Your task to perform on an android device: Show me popular games on the Play Store Image 0: 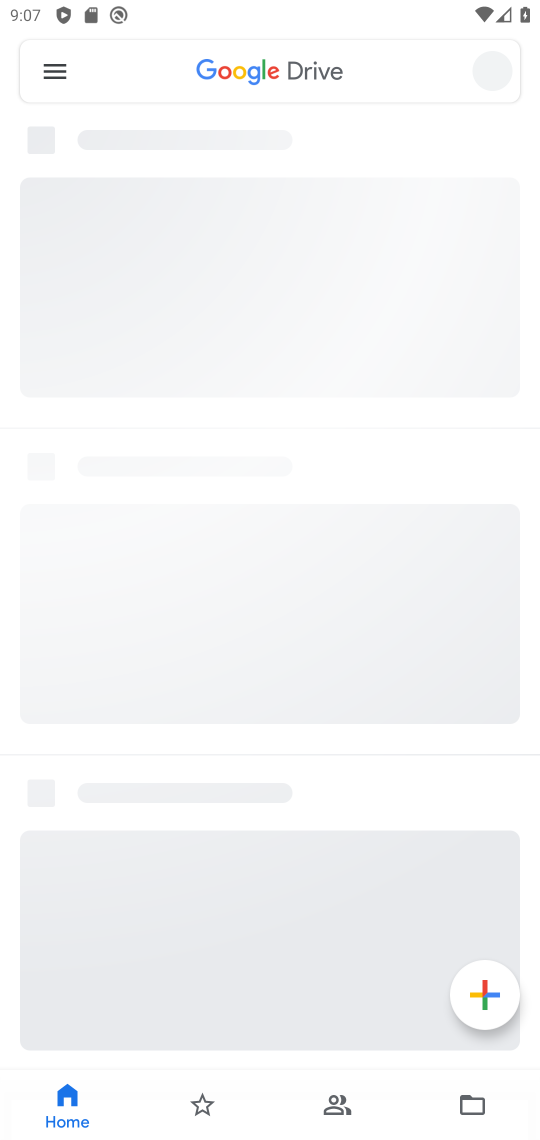
Step 0: press home button
Your task to perform on an android device: Show me popular games on the Play Store Image 1: 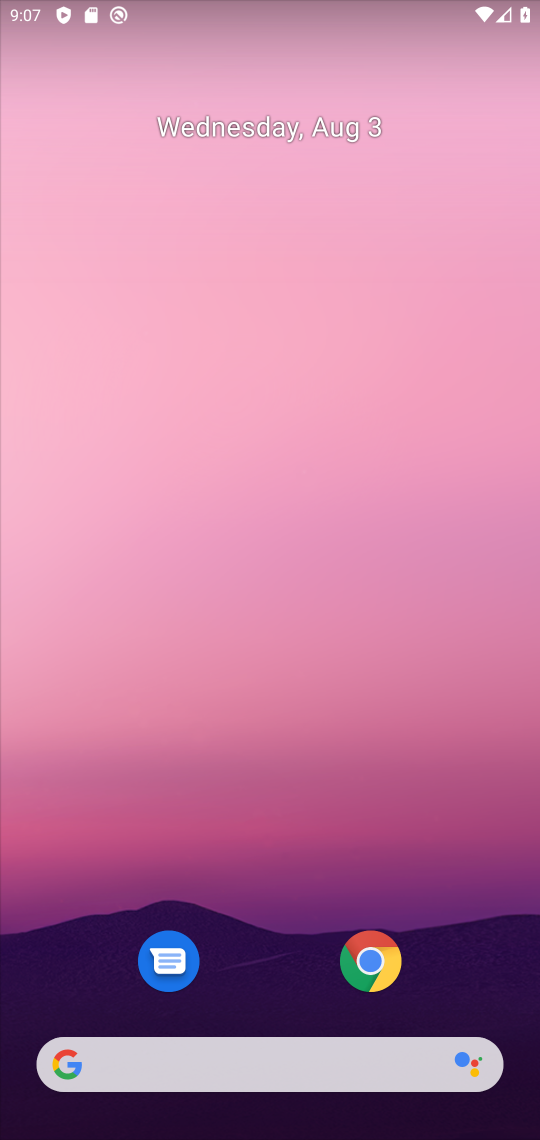
Step 1: drag from (291, 1000) to (222, 99)
Your task to perform on an android device: Show me popular games on the Play Store Image 2: 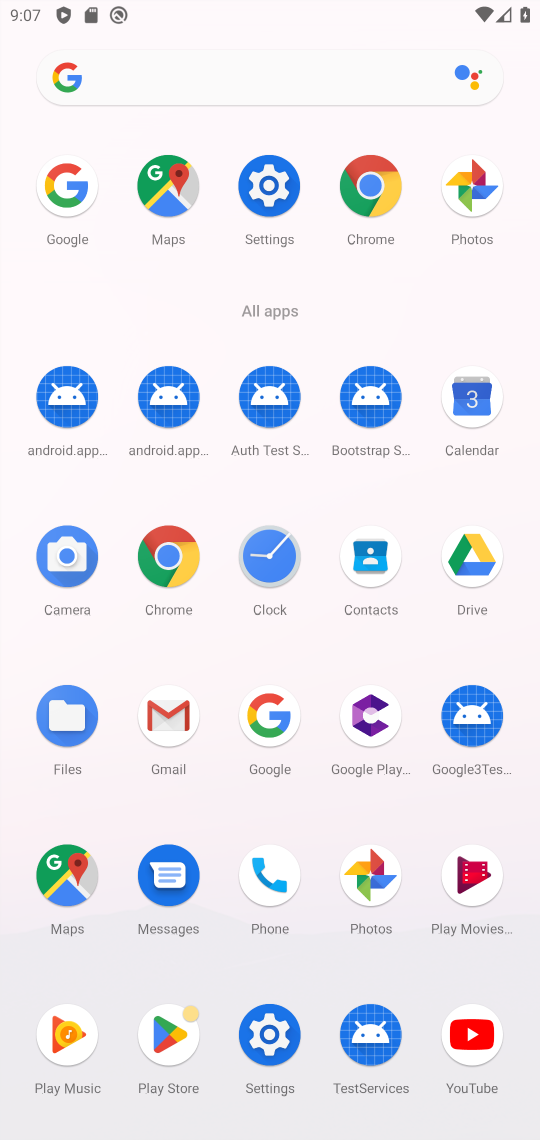
Step 2: click (159, 1049)
Your task to perform on an android device: Show me popular games on the Play Store Image 3: 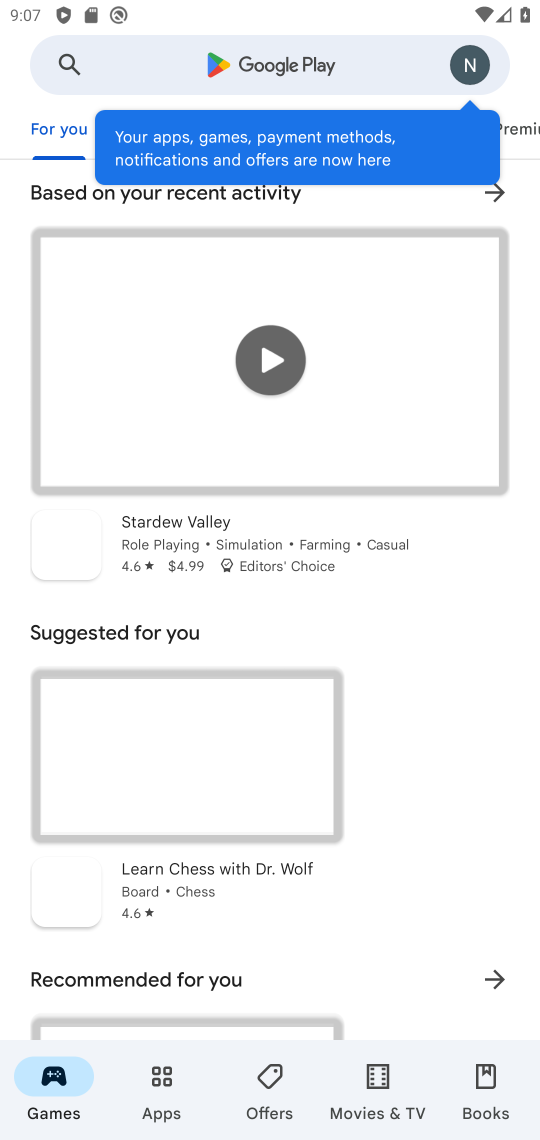
Step 3: click (196, 55)
Your task to perform on an android device: Show me popular games on the Play Store Image 4: 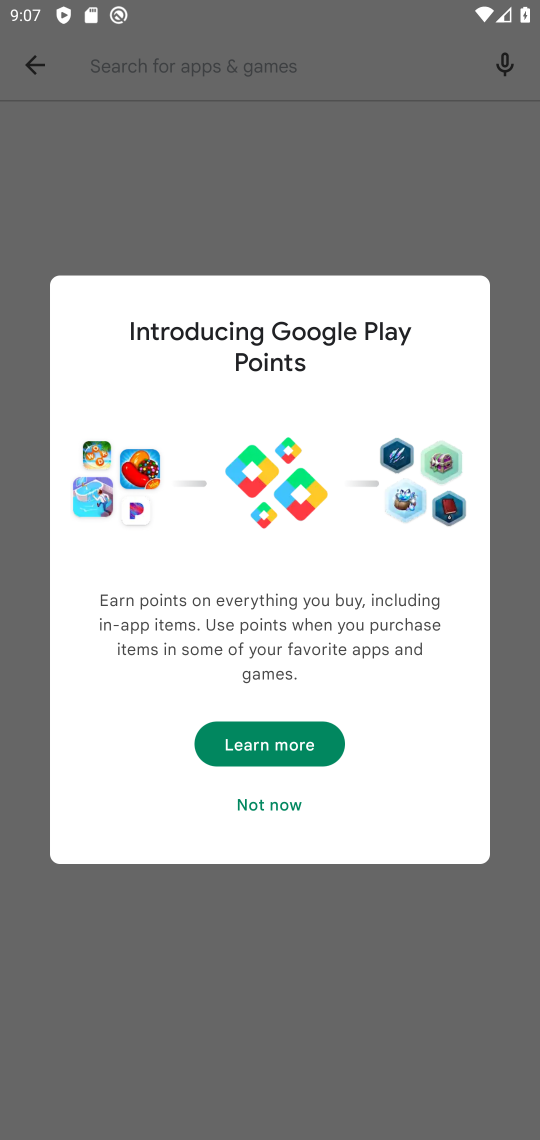
Step 4: click (370, 918)
Your task to perform on an android device: Show me popular games on the Play Store Image 5: 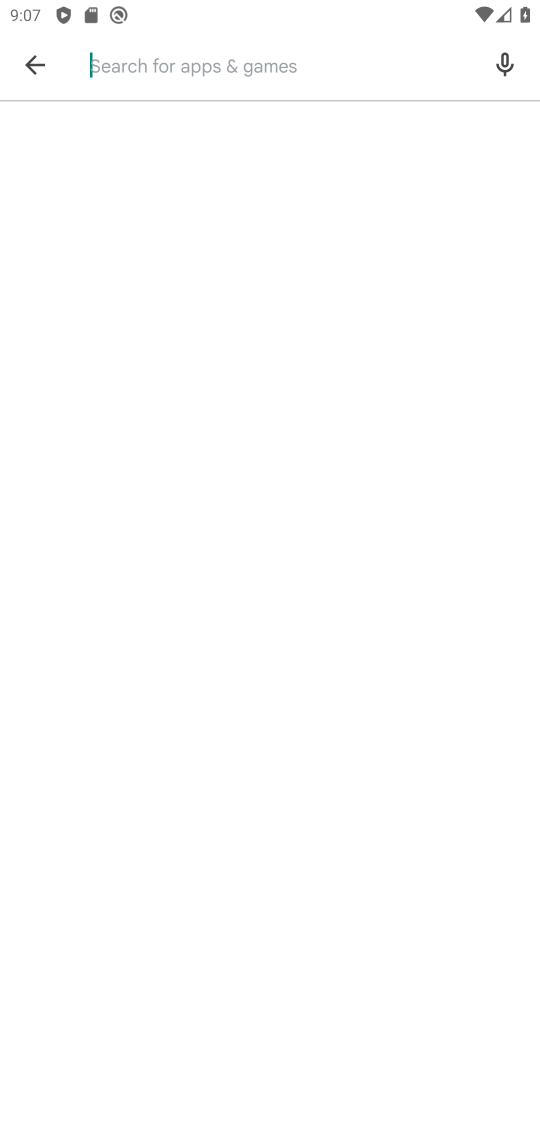
Step 5: click (16, 75)
Your task to perform on an android device: Show me popular games on the Play Store Image 6: 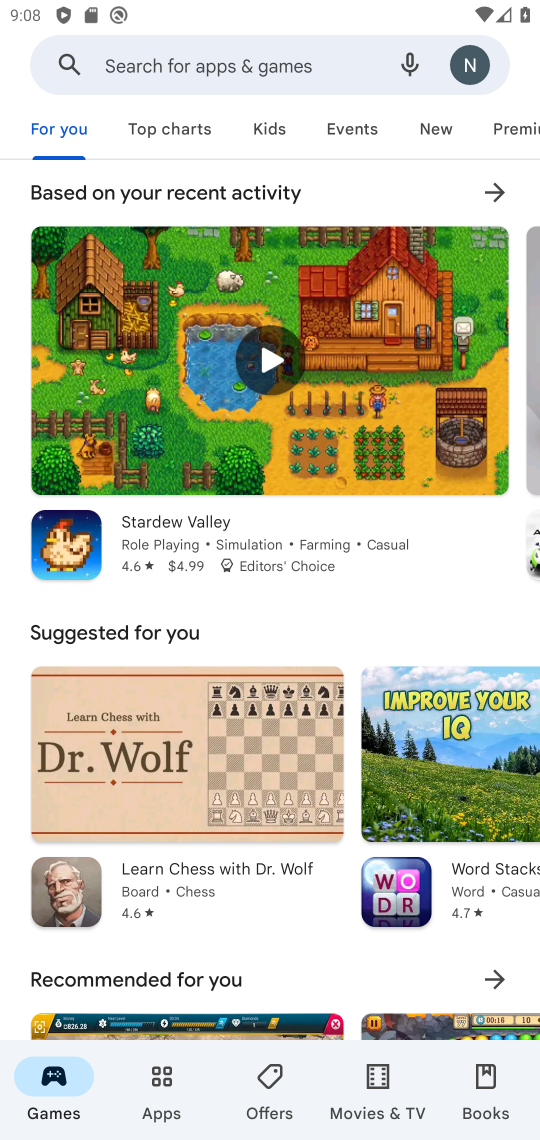
Step 6: task complete